Your task to perform on an android device: Go to Maps Image 0: 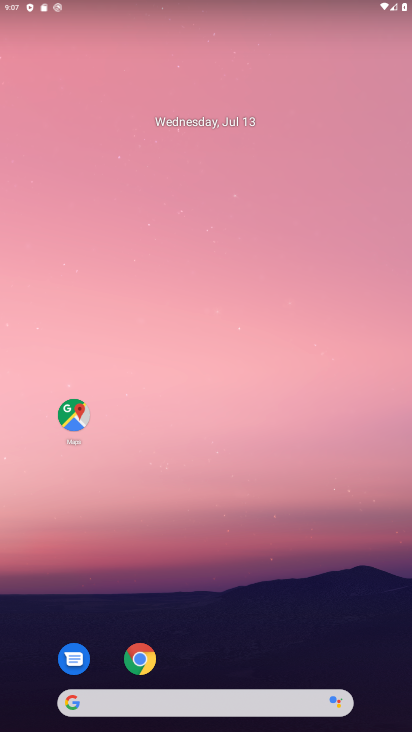
Step 0: click (77, 417)
Your task to perform on an android device: Go to Maps Image 1: 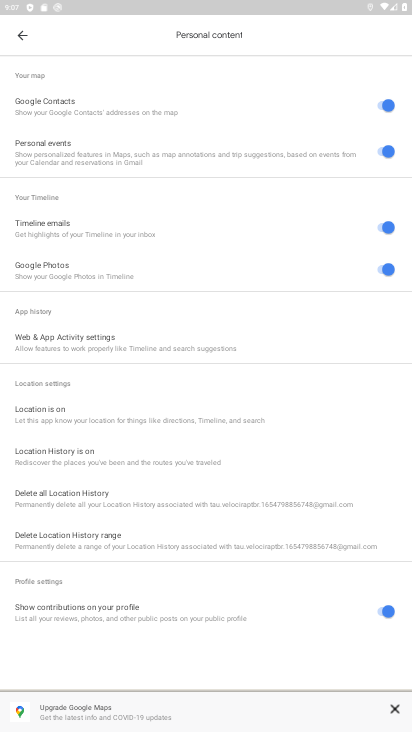
Step 1: task complete